Your task to perform on an android device: Open Android settings Image 0: 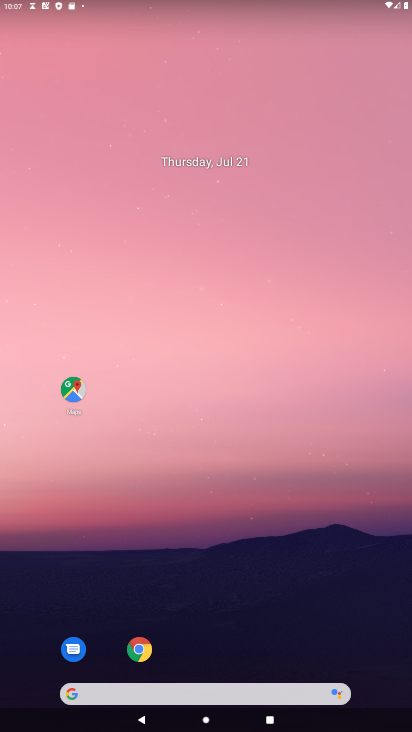
Step 0: click (346, 641)
Your task to perform on an android device: Open Android settings Image 1: 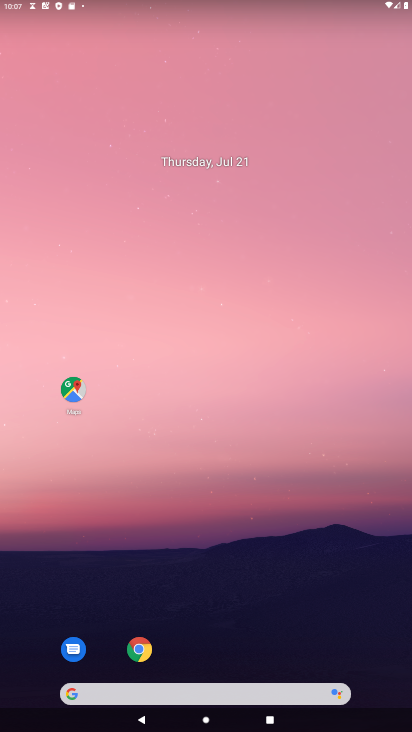
Step 1: drag from (346, 641) to (296, 295)
Your task to perform on an android device: Open Android settings Image 2: 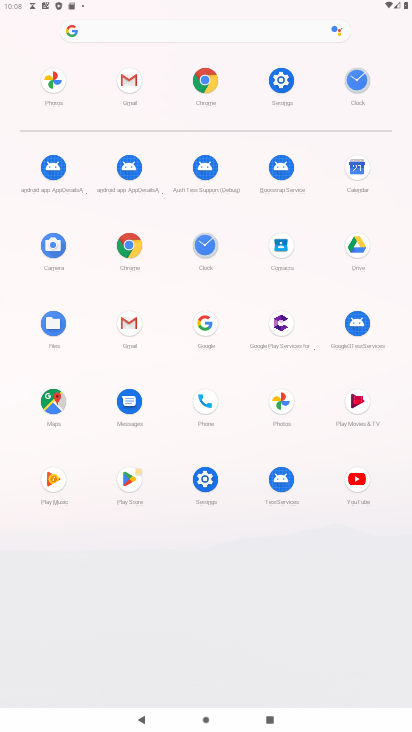
Step 2: click (207, 480)
Your task to perform on an android device: Open Android settings Image 3: 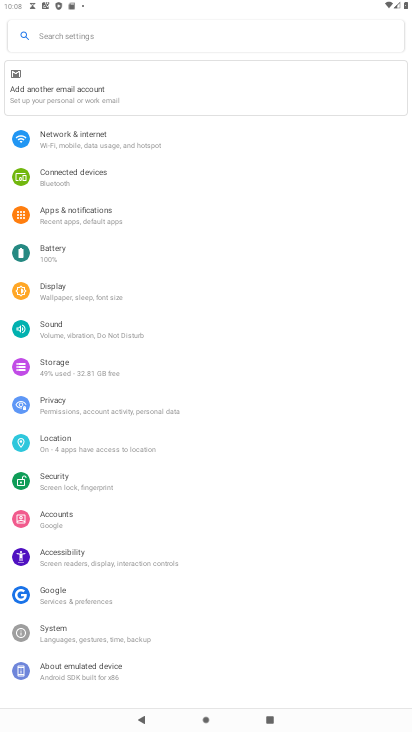
Step 3: task complete